Your task to perform on an android device: change timer sound Image 0: 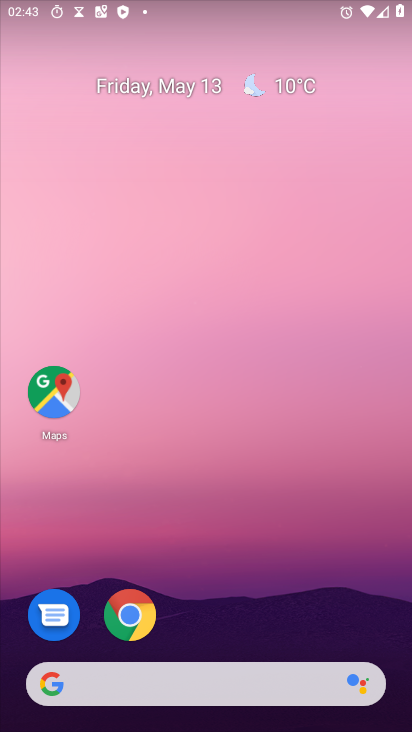
Step 0: drag from (204, 612) to (169, 232)
Your task to perform on an android device: change timer sound Image 1: 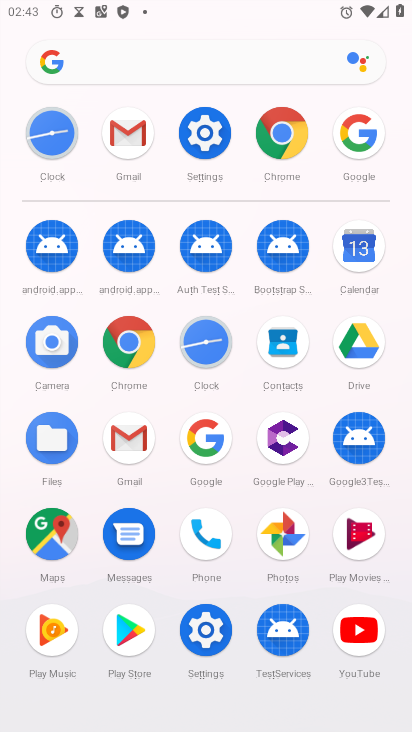
Step 1: click (209, 355)
Your task to perform on an android device: change timer sound Image 2: 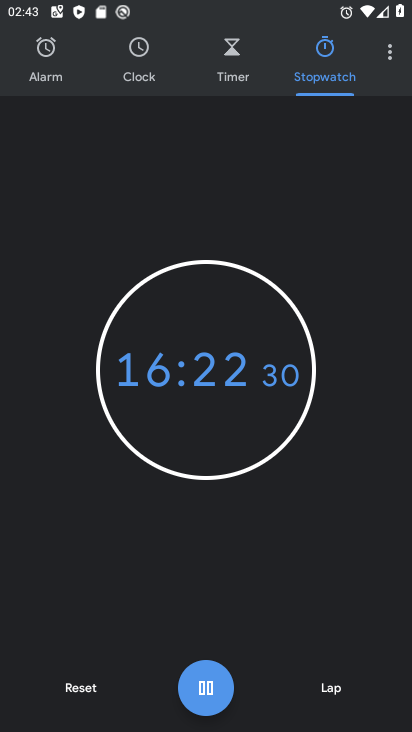
Step 2: click (392, 56)
Your task to perform on an android device: change timer sound Image 3: 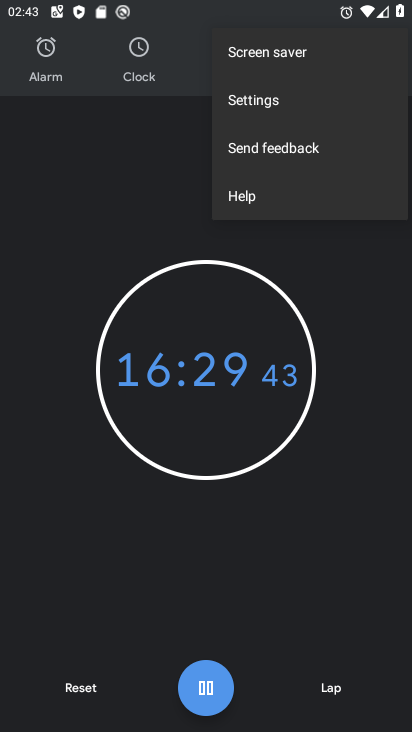
Step 3: click (275, 99)
Your task to perform on an android device: change timer sound Image 4: 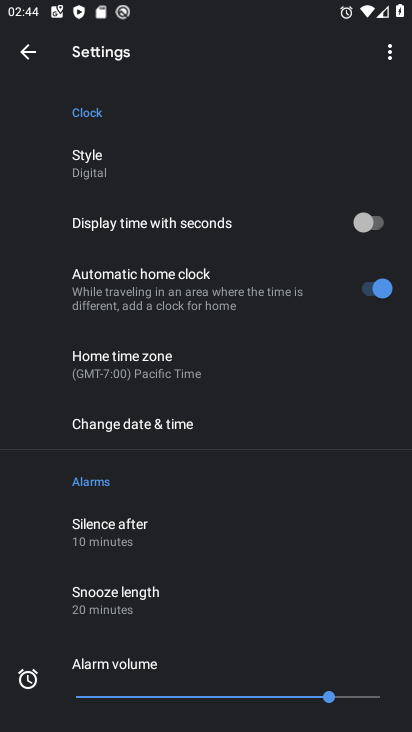
Step 4: drag from (175, 608) to (185, 209)
Your task to perform on an android device: change timer sound Image 5: 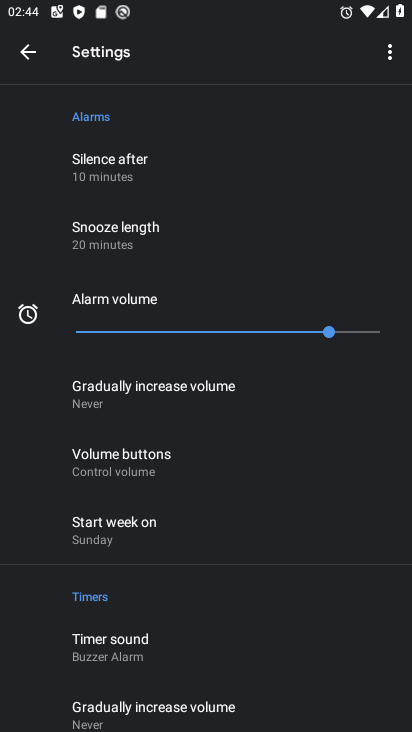
Step 5: click (141, 652)
Your task to perform on an android device: change timer sound Image 6: 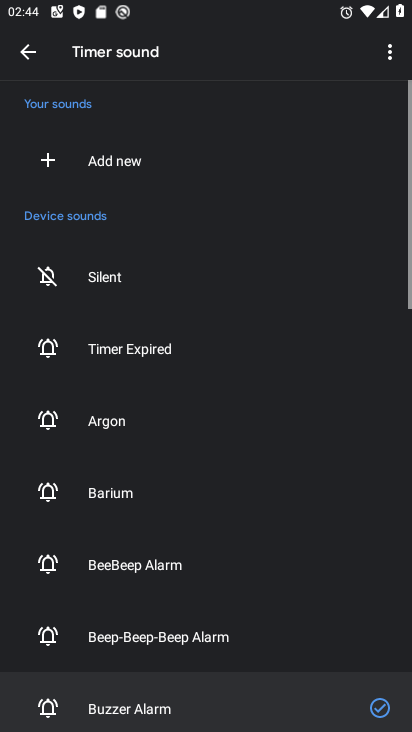
Step 6: drag from (135, 644) to (144, 110)
Your task to perform on an android device: change timer sound Image 7: 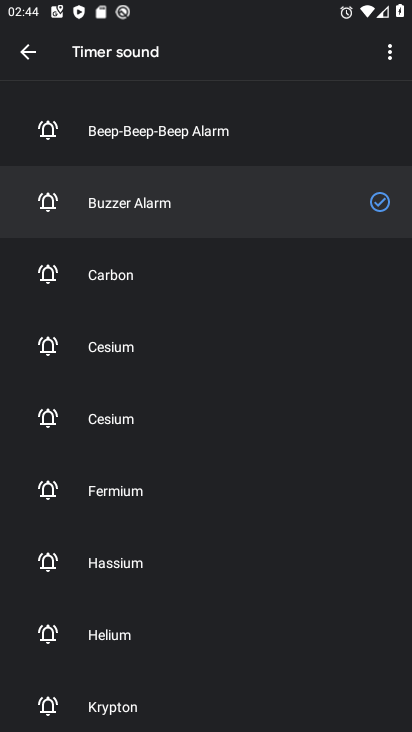
Step 7: drag from (123, 667) to (174, 330)
Your task to perform on an android device: change timer sound Image 8: 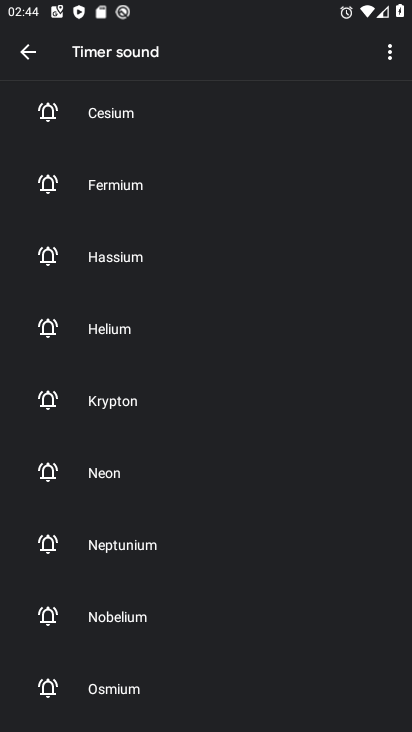
Step 8: click (107, 464)
Your task to perform on an android device: change timer sound Image 9: 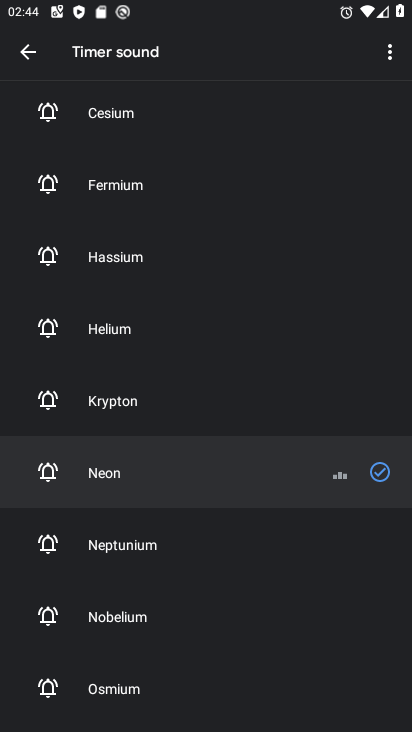
Step 9: task complete